Your task to perform on an android device: Is it going to rain today? Image 0: 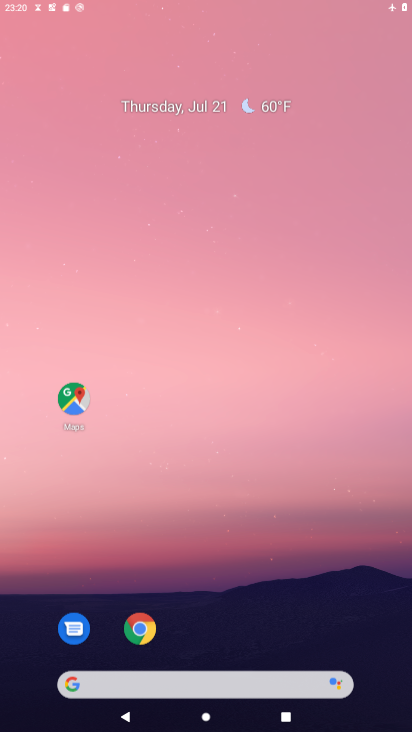
Step 0: click (226, 132)
Your task to perform on an android device: Is it going to rain today? Image 1: 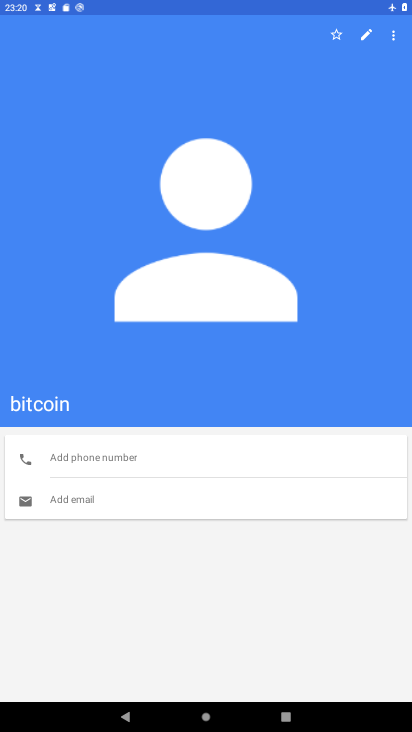
Step 1: press home button
Your task to perform on an android device: Is it going to rain today? Image 2: 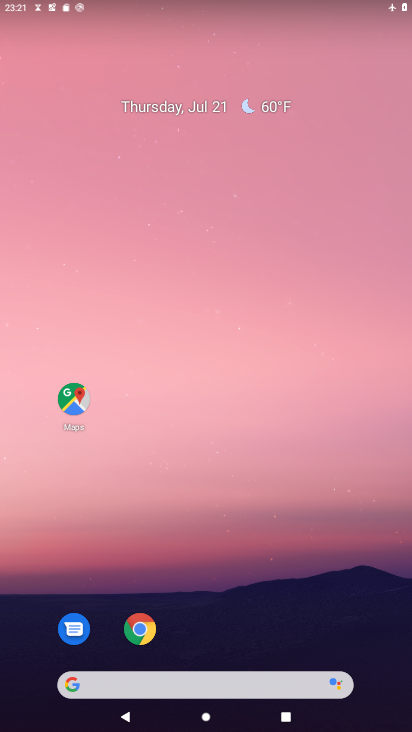
Step 2: click (131, 623)
Your task to perform on an android device: Is it going to rain today? Image 3: 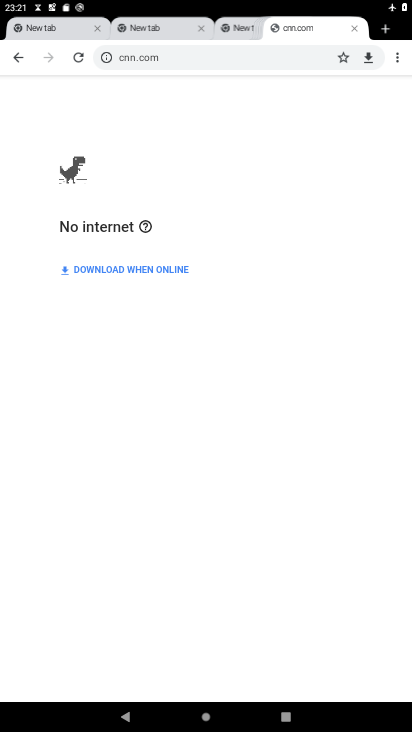
Step 3: click (382, 28)
Your task to perform on an android device: Is it going to rain today? Image 4: 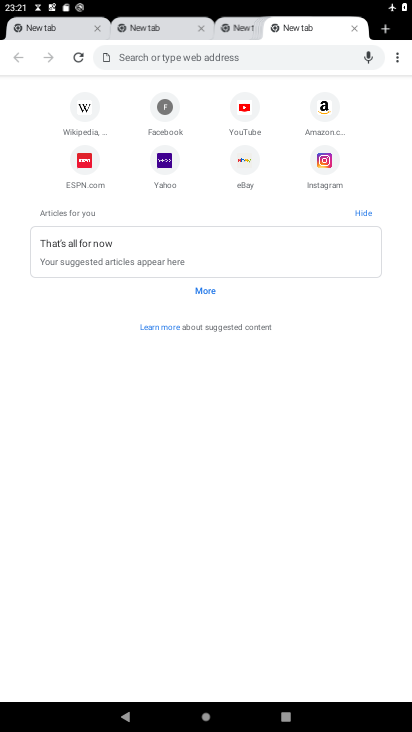
Step 4: click (213, 54)
Your task to perform on an android device: Is it going to rain today? Image 5: 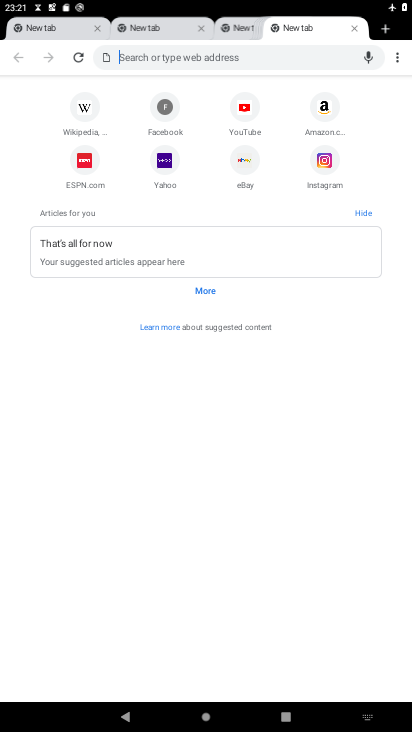
Step 5: type "Is it going to rain today "
Your task to perform on an android device: Is it going to rain today? Image 6: 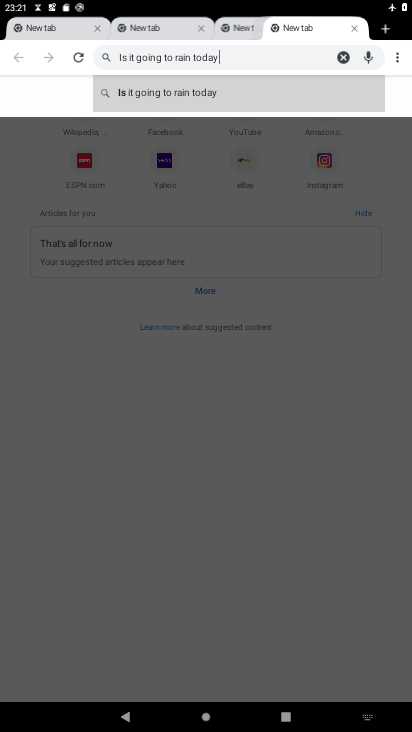
Step 6: click (224, 88)
Your task to perform on an android device: Is it going to rain today? Image 7: 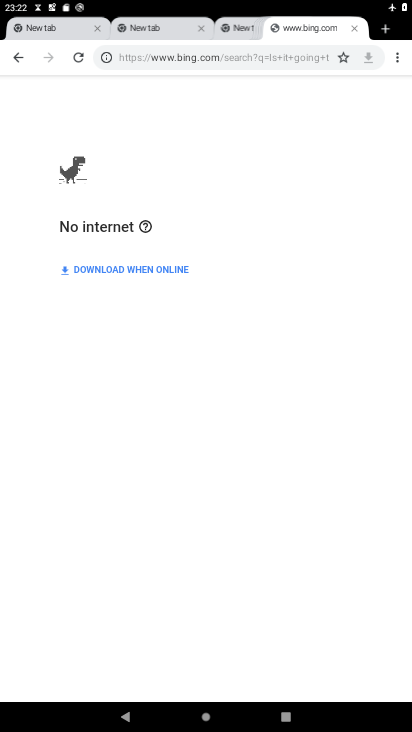
Step 7: task complete